Your task to perform on an android device: toggle data saver in the chrome app Image 0: 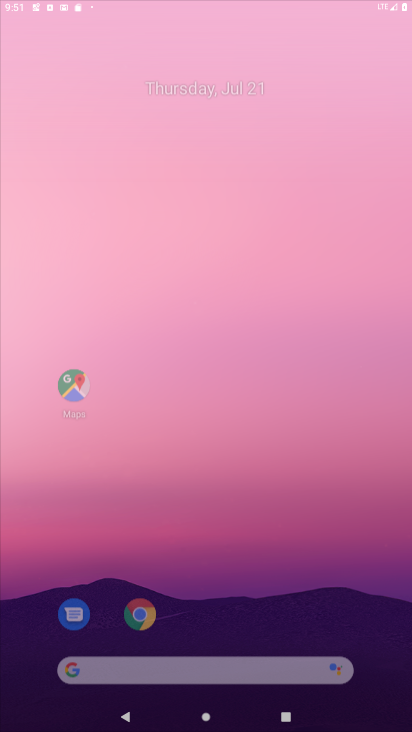
Step 0: drag from (267, 537) to (253, 130)
Your task to perform on an android device: toggle data saver in the chrome app Image 1: 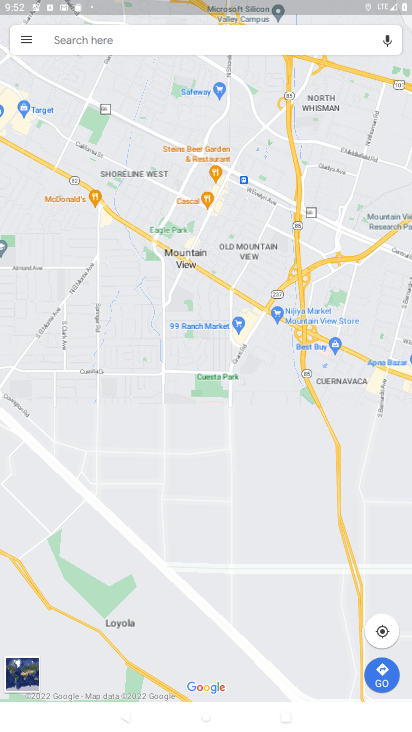
Step 1: press home button
Your task to perform on an android device: toggle data saver in the chrome app Image 2: 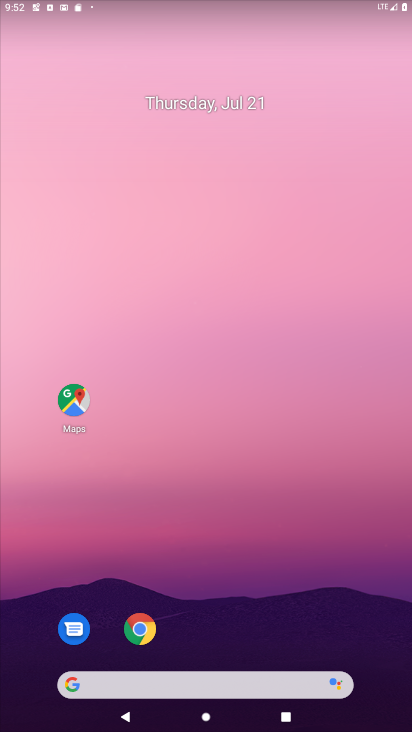
Step 2: drag from (242, 629) to (242, 176)
Your task to perform on an android device: toggle data saver in the chrome app Image 3: 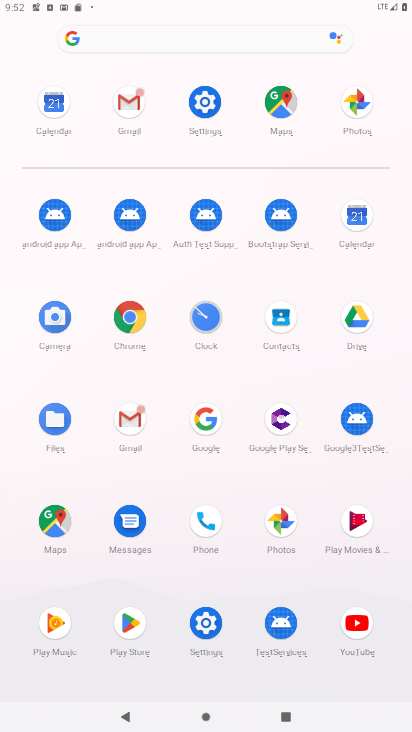
Step 3: click (123, 333)
Your task to perform on an android device: toggle data saver in the chrome app Image 4: 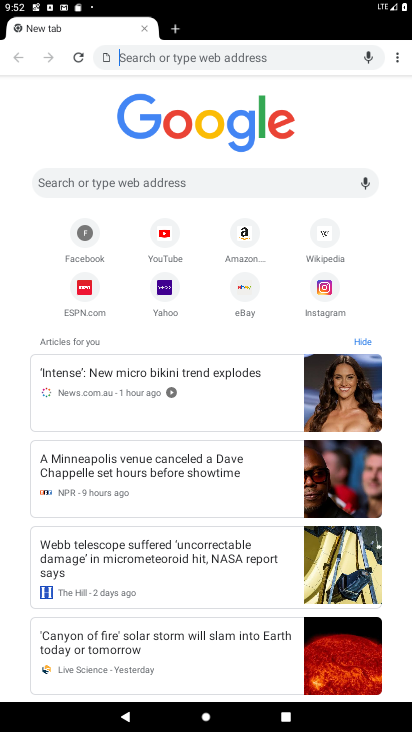
Step 4: click (398, 61)
Your task to perform on an android device: toggle data saver in the chrome app Image 5: 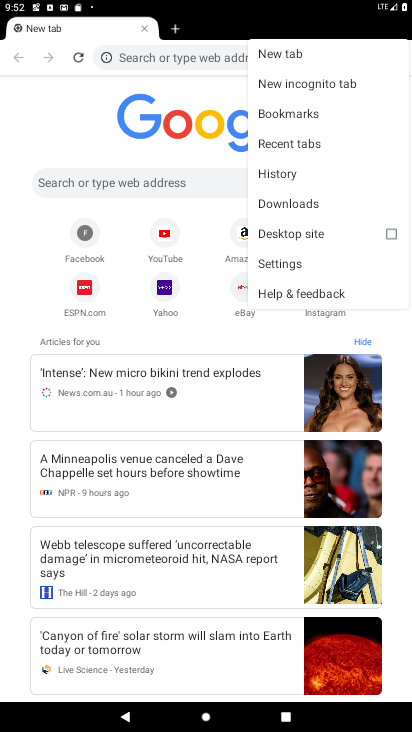
Step 5: click (285, 266)
Your task to perform on an android device: toggle data saver in the chrome app Image 6: 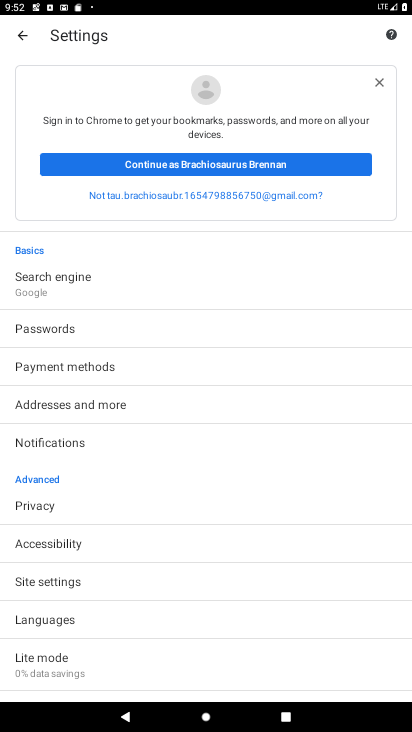
Step 6: drag from (91, 652) to (90, 419)
Your task to perform on an android device: toggle data saver in the chrome app Image 7: 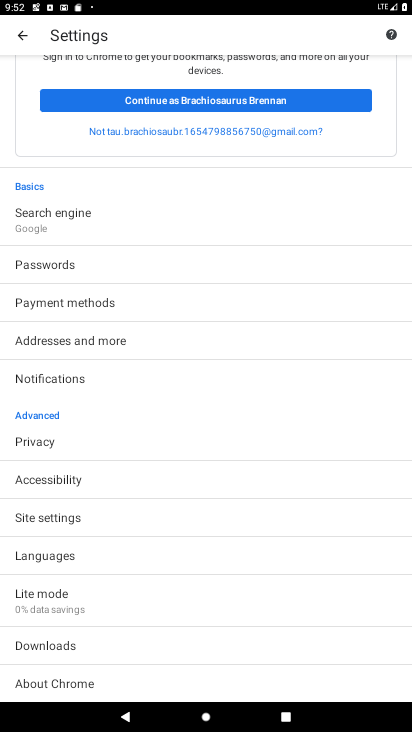
Step 7: click (52, 609)
Your task to perform on an android device: toggle data saver in the chrome app Image 8: 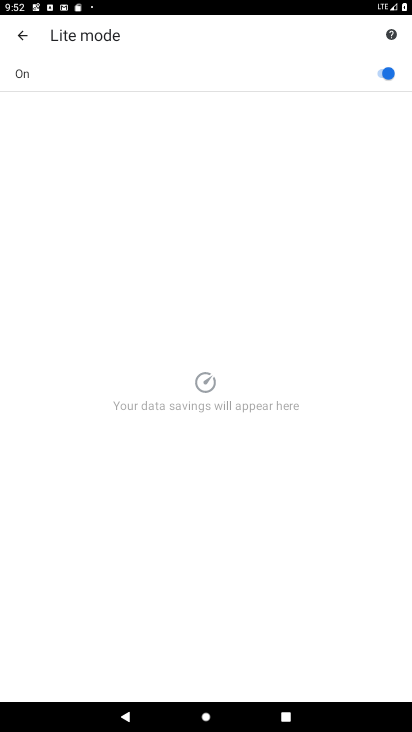
Step 8: click (377, 74)
Your task to perform on an android device: toggle data saver in the chrome app Image 9: 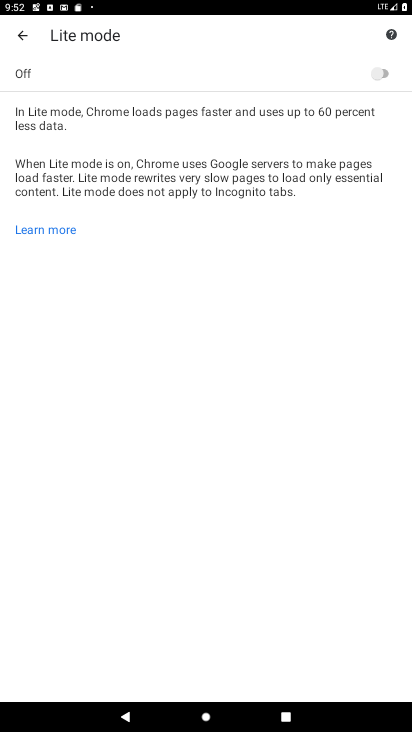
Step 9: task complete